Your task to perform on an android device: change timer sound Image 0: 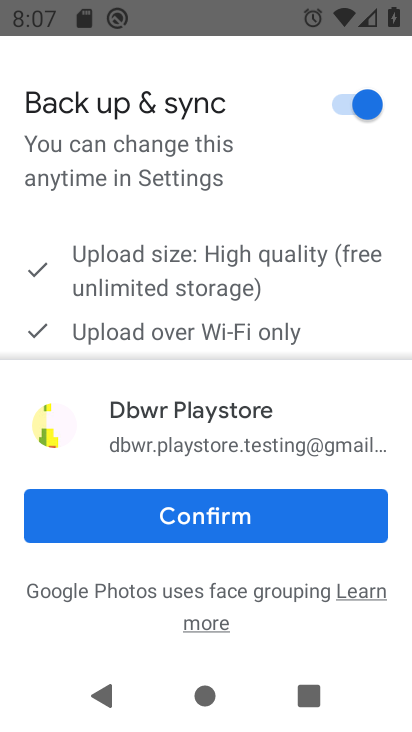
Step 0: press home button
Your task to perform on an android device: change timer sound Image 1: 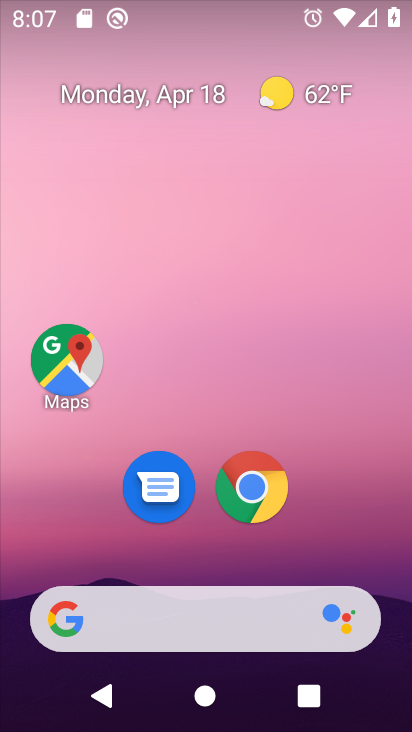
Step 1: drag from (208, 558) to (235, 73)
Your task to perform on an android device: change timer sound Image 2: 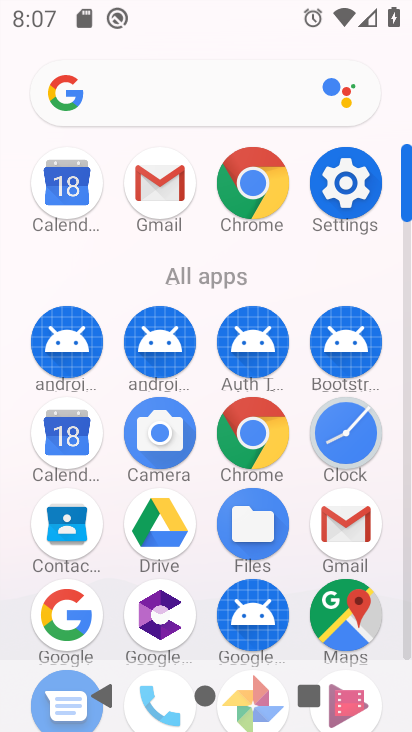
Step 2: click (341, 427)
Your task to perform on an android device: change timer sound Image 3: 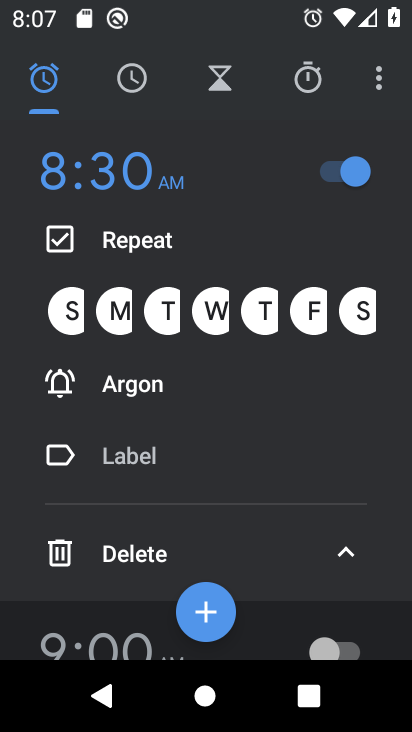
Step 3: click (374, 73)
Your task to perform on an android device: change timer sound Image 4: 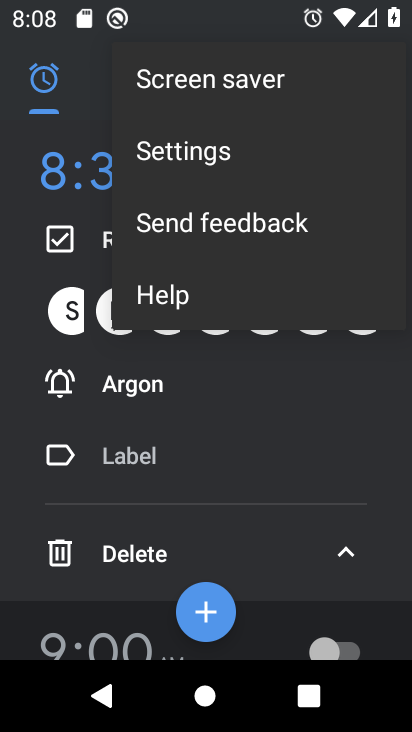
Step 4: click (228, 153)
Your task to perform on an android device: change timer sound Image 5: 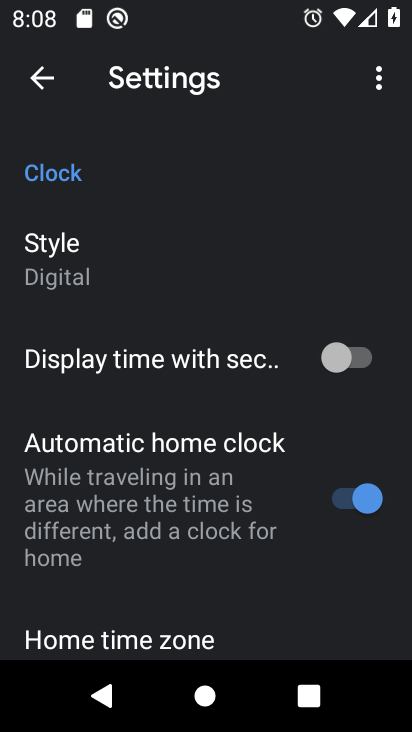
Step 5: drag from (190, 535) to (238, 74)
Your task to perform on an android device: change timer sound Image 6: 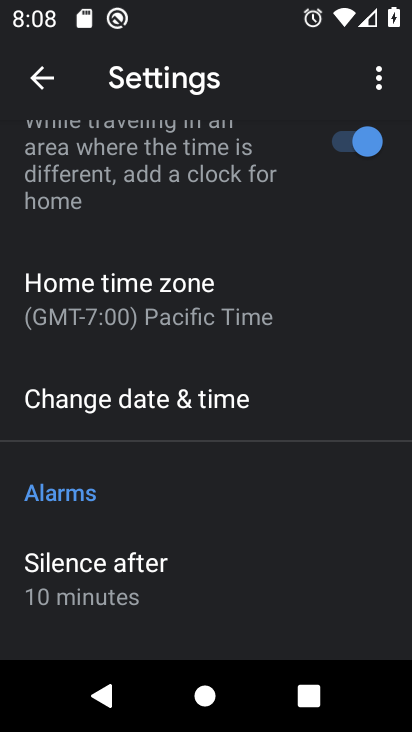
Step 6: drag from (181, 547) to (223, 61)
Your task to perform on an android device: change timer sound Image 7: 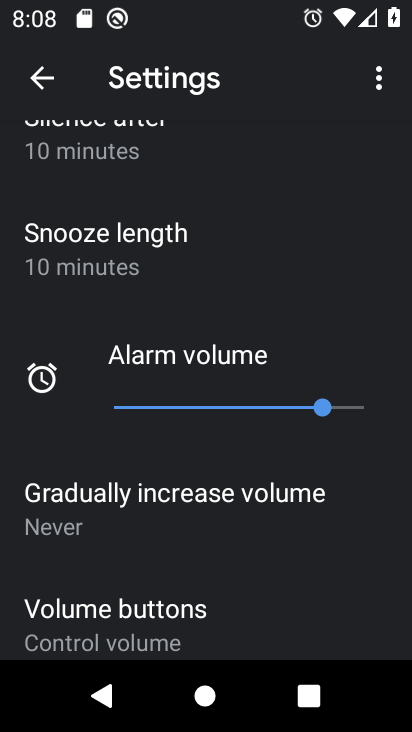
Step 7: drag from (154, 552) to (182, 78)
Your task to perform on an android device: change timer sound Image 8: 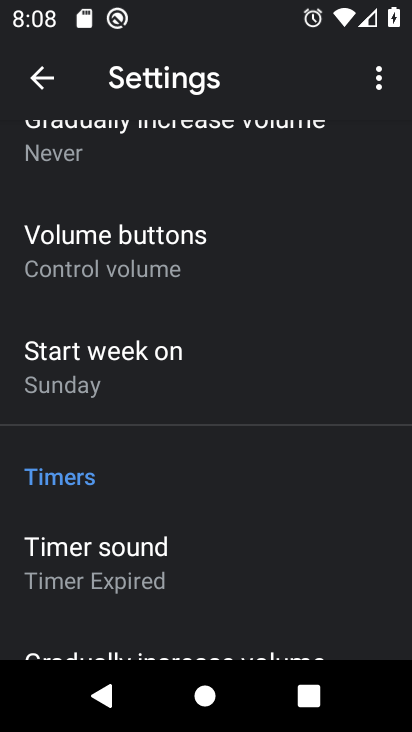
Step 8: click (160, 557)
Your task to perform on an android device: change timer sound Image 9: 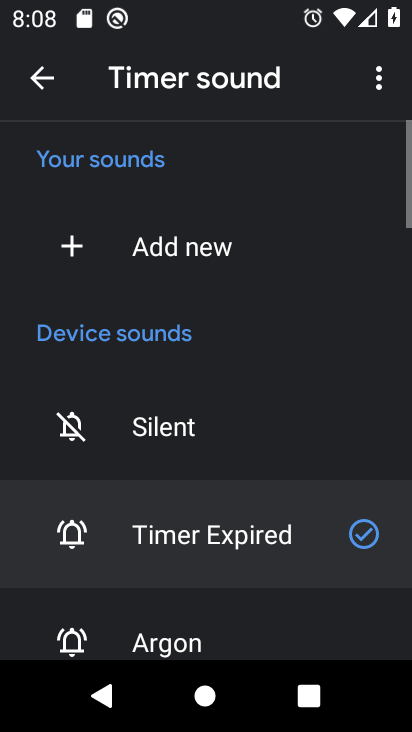
Step 9: drag from (170, 583) to (197, 188)
Your task to perform on an android device: change timer sound Image 10: 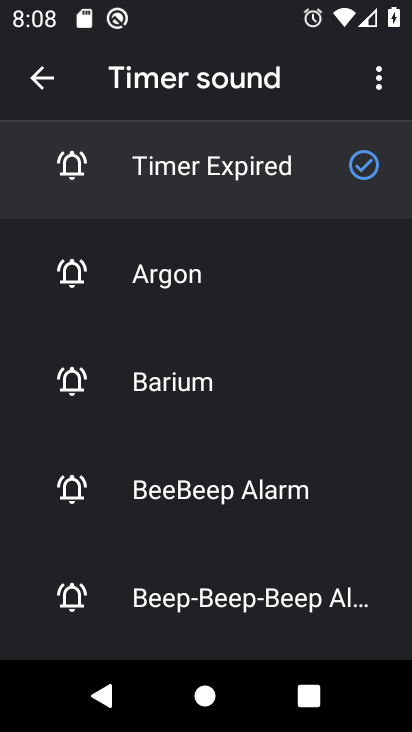
Step 10: click (221, 487)
Your task to perform on an android device: change timer sound Image 11: 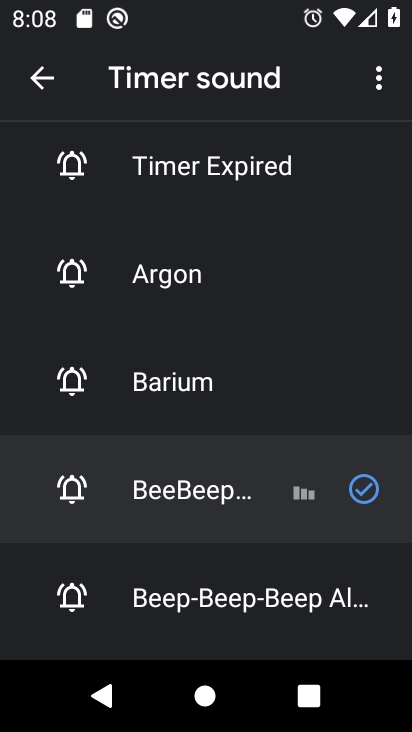
Step 11: task complete